Your task to perform on an android device: install app "Grab" Image 0: 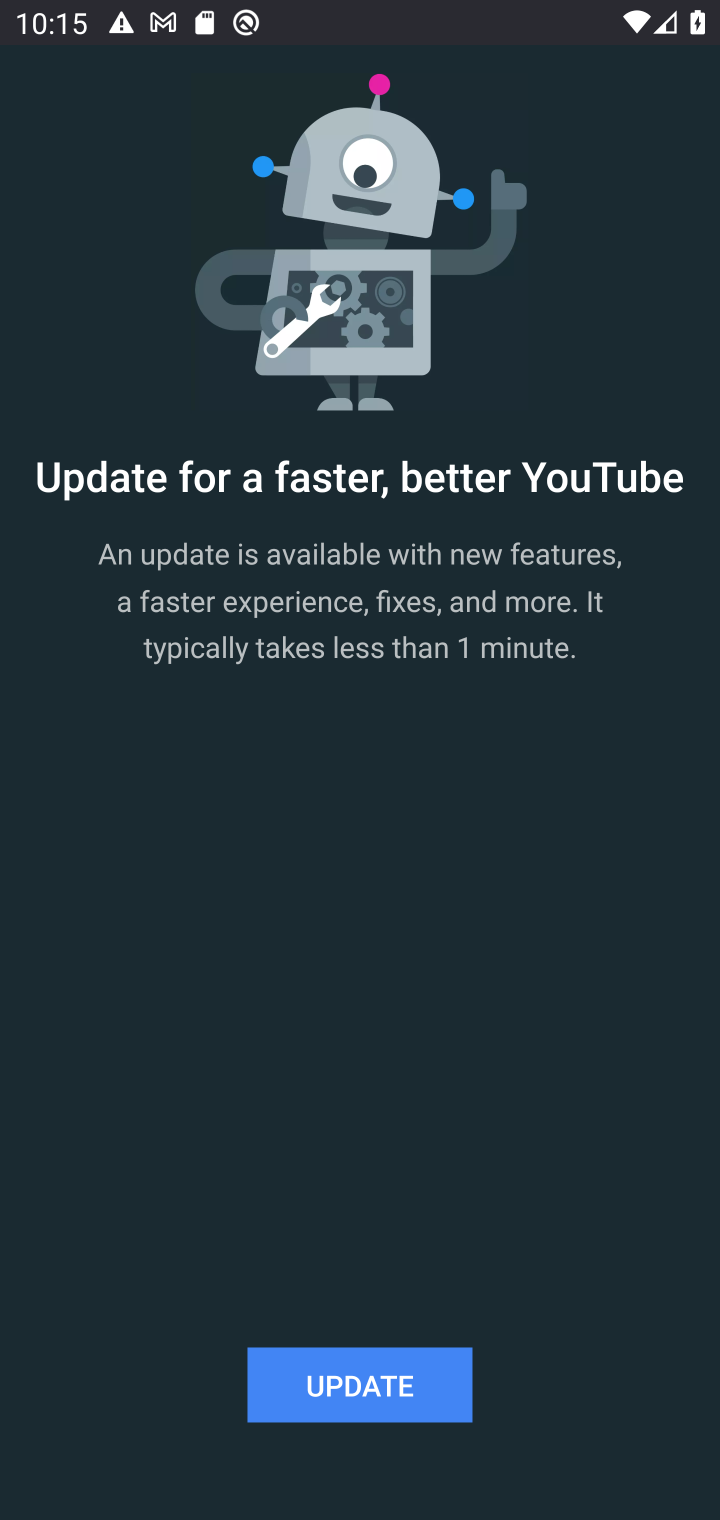
Step 0: press home button
Your task to perform on an android device: install app "Grab" Image 1: 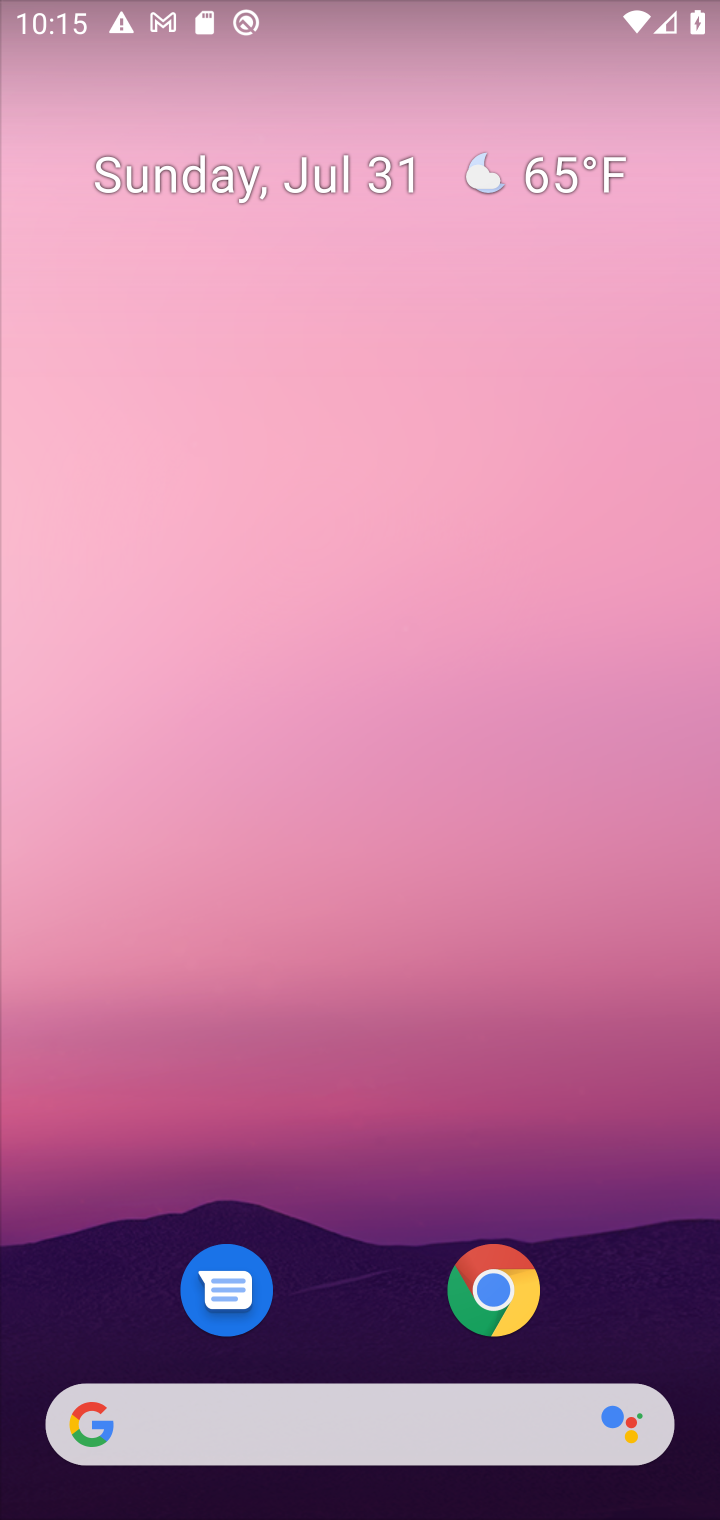
Step 1: press home button
Your task to perform on an android device: install app "Grab" Image 2: 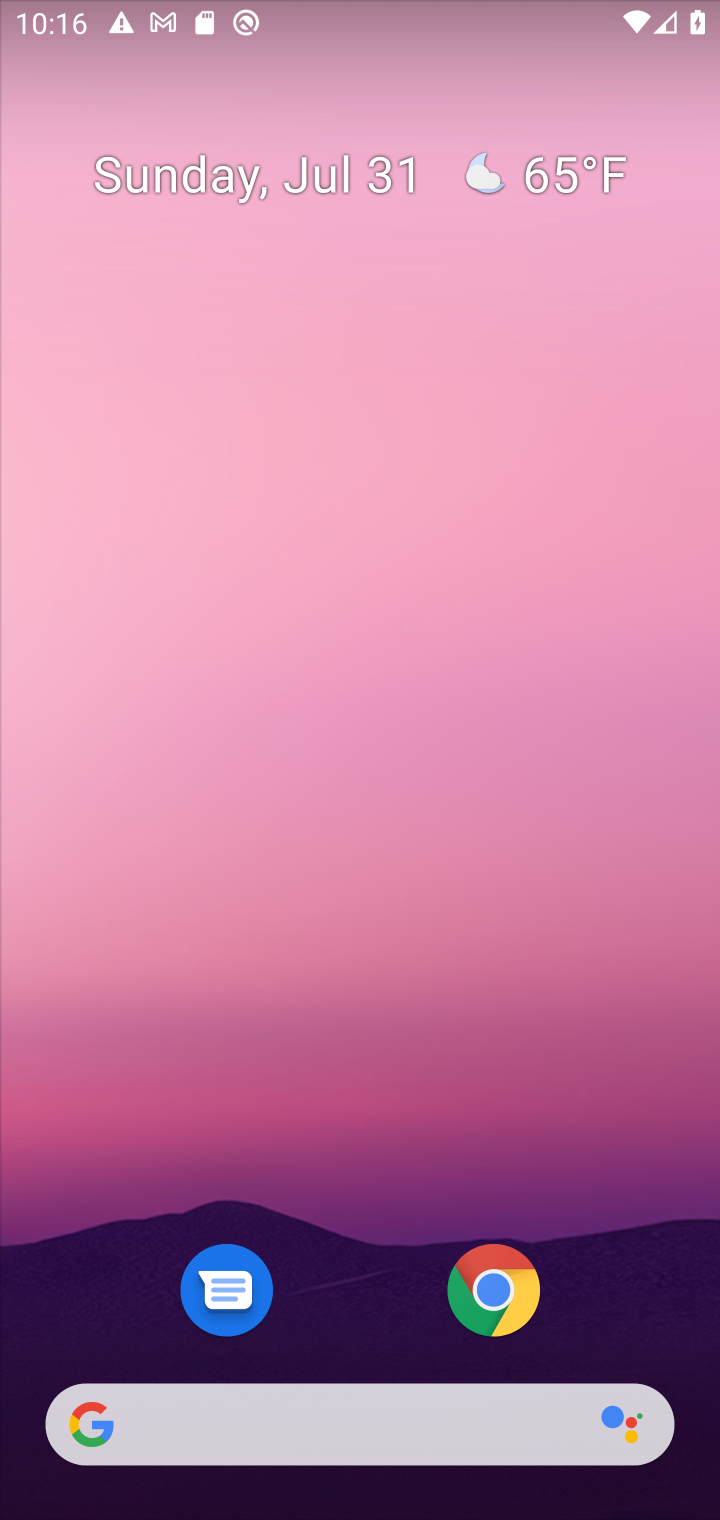
Step 2: drag from (615, 1106) to (617, 119)
Your task to perform on an android device: install app "Grab" Image 3: 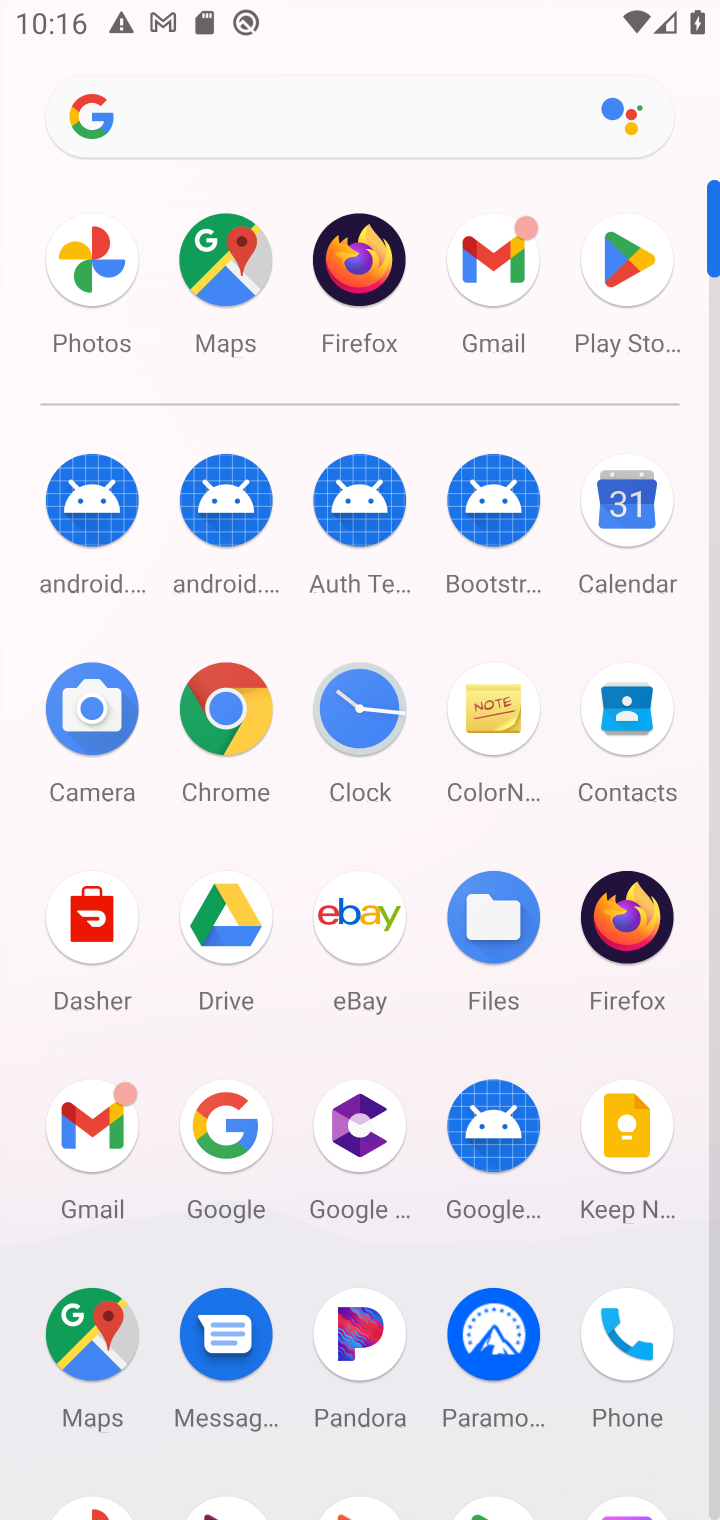
Step 3: click (624, 269)
Your task to perform on an android device: install app "Grab" Image 4: 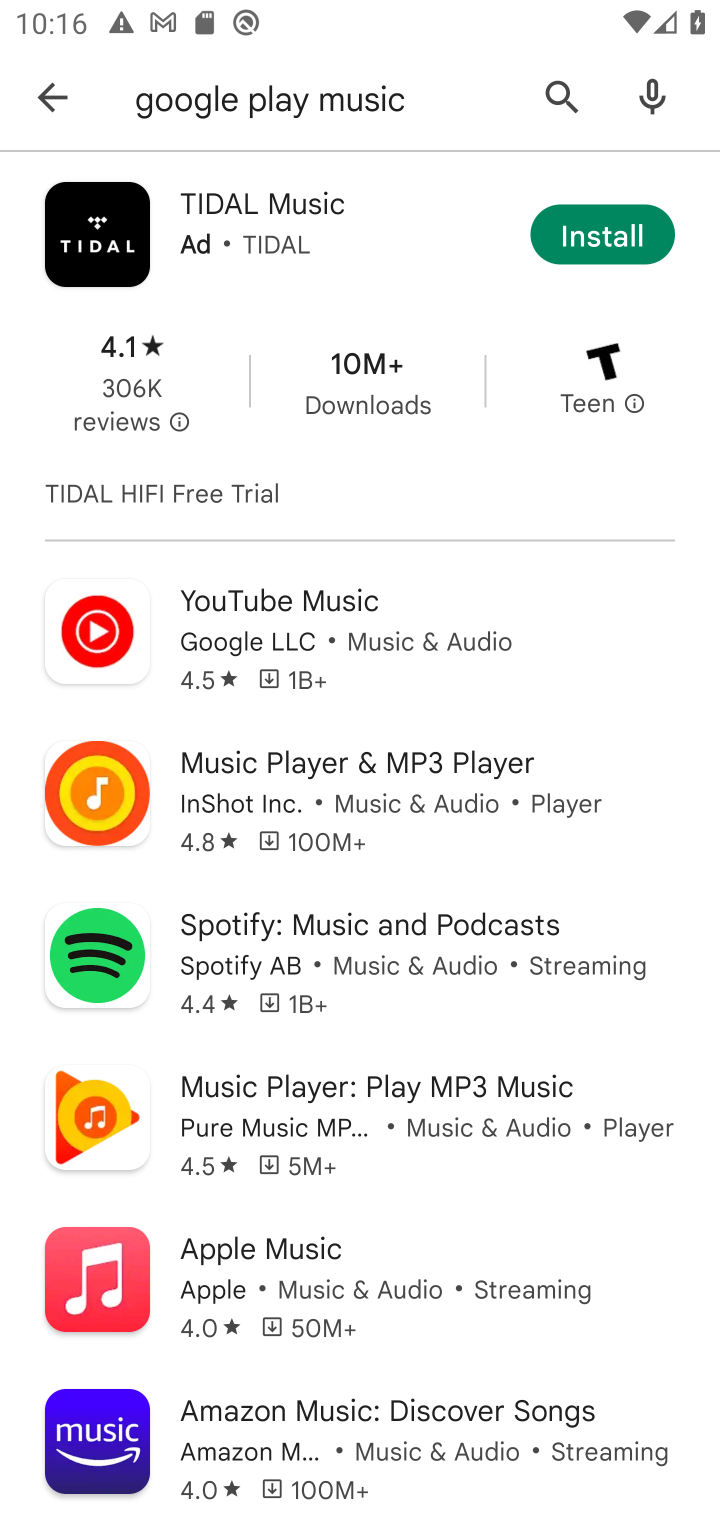
Step 4: click (559, 92)
Your task to perform on an android device: install app "Grab" Image 5: 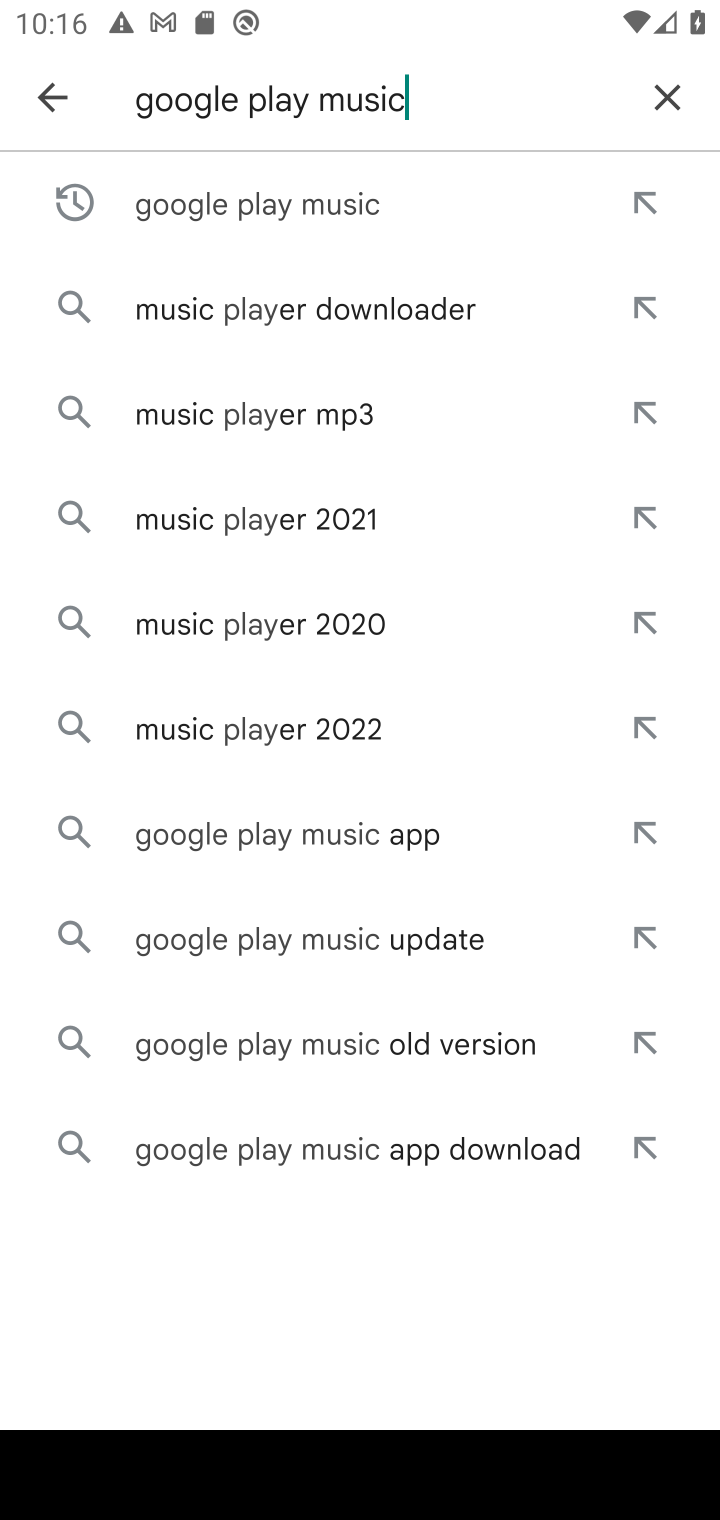
Step 5: click (676, 102)
Your task to perform on an android device: install app "Grab" Image 6: 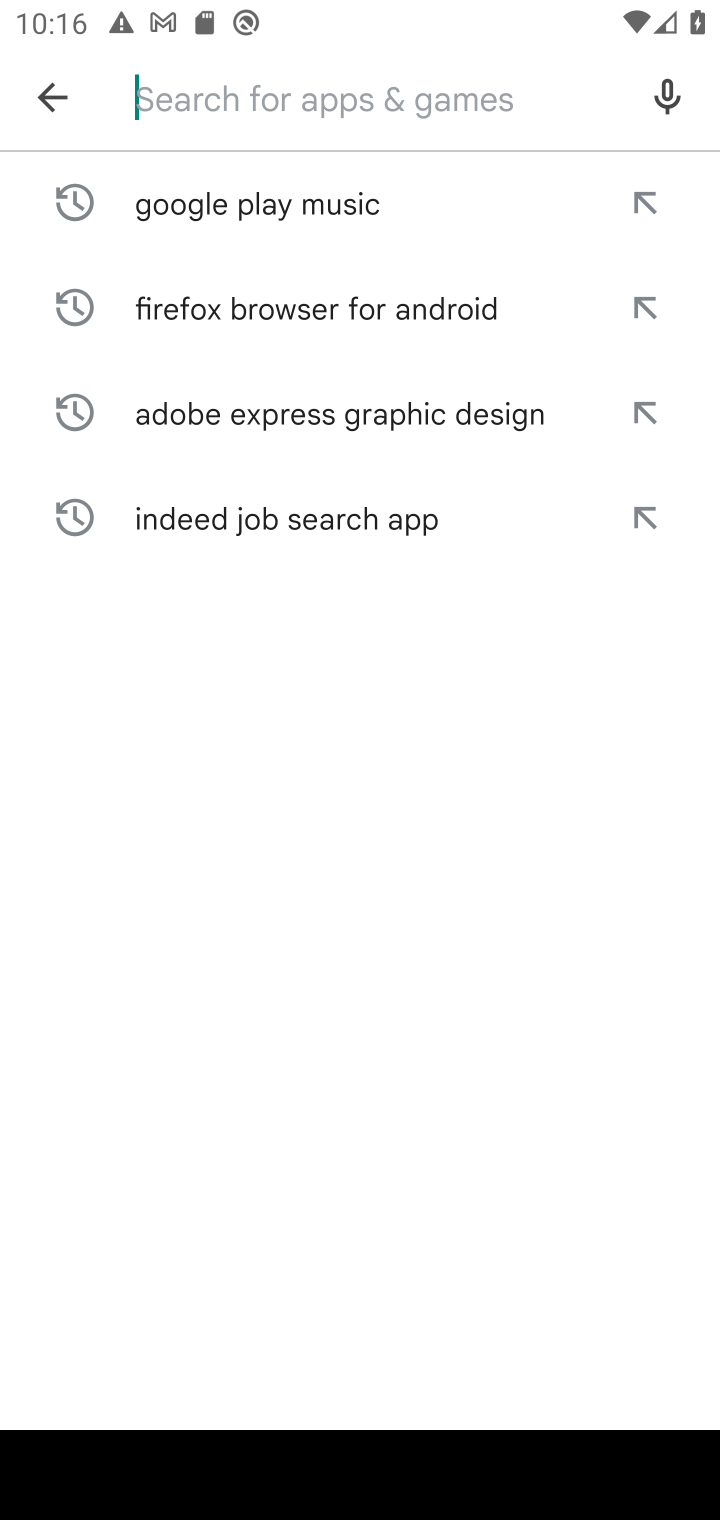
Step 6: type "grab"
Your task to perform on an android device: install app "Grab" Image 7: 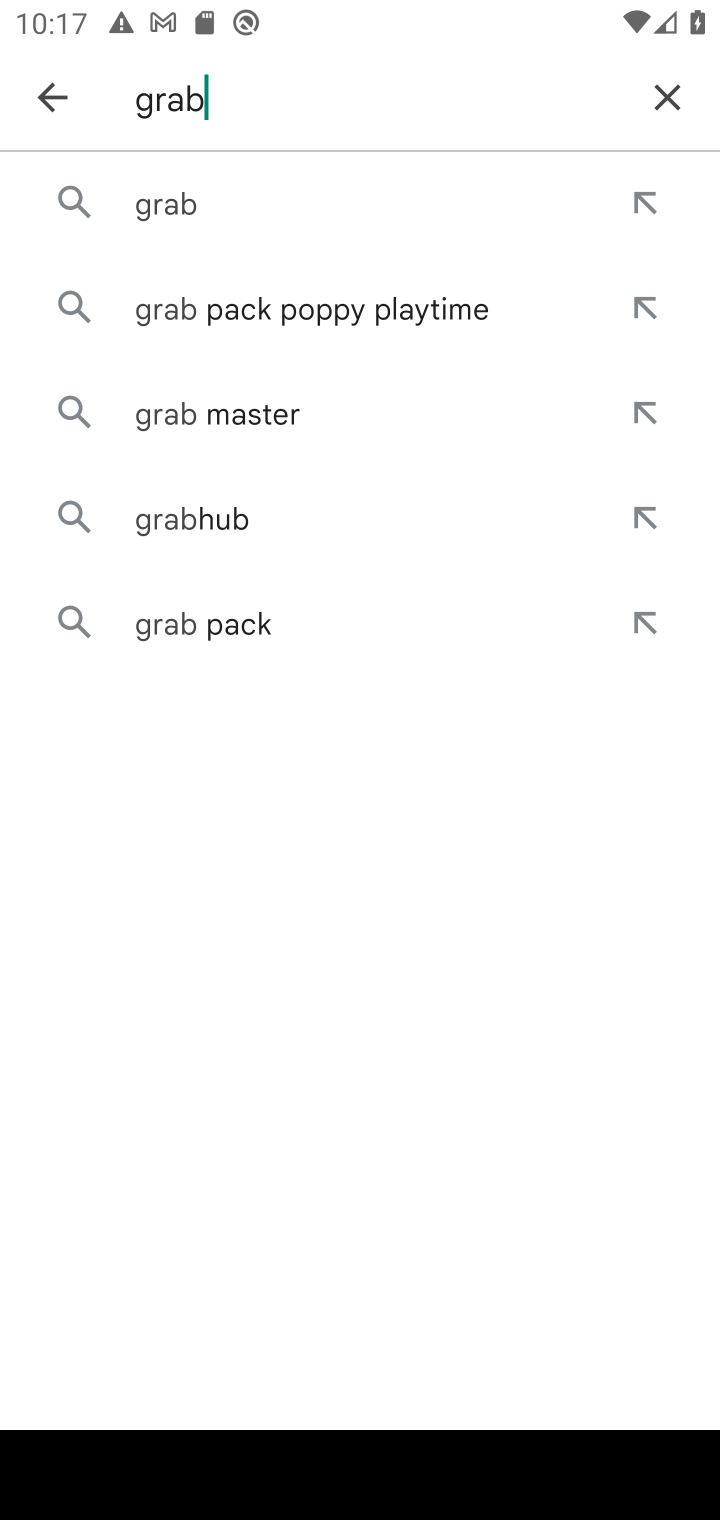
Step 7: click (333, 209)
Your task to perform on an android device: install app "Grab" Image 8: 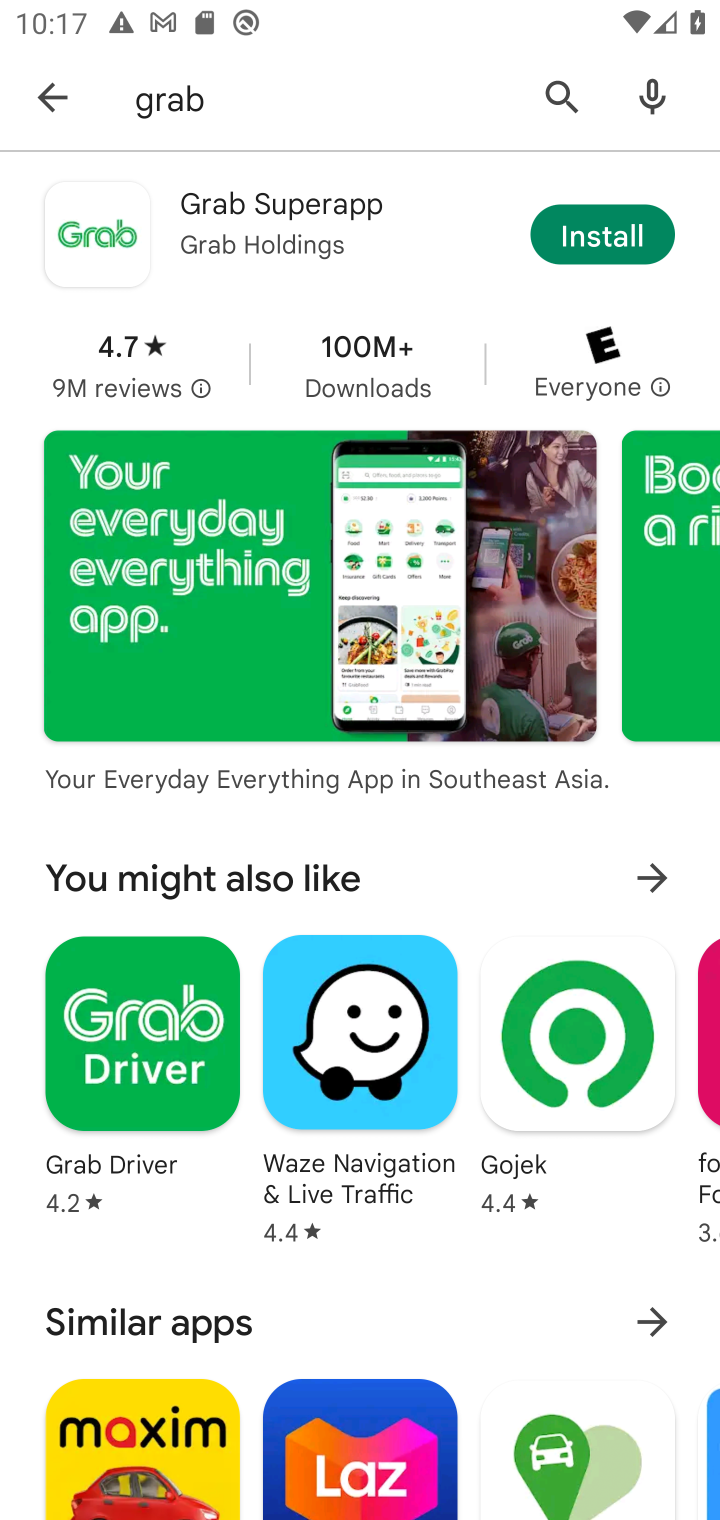
Step 8: click (626, 231)
Your task to perform on an android device: install app "Grab" Image 9: 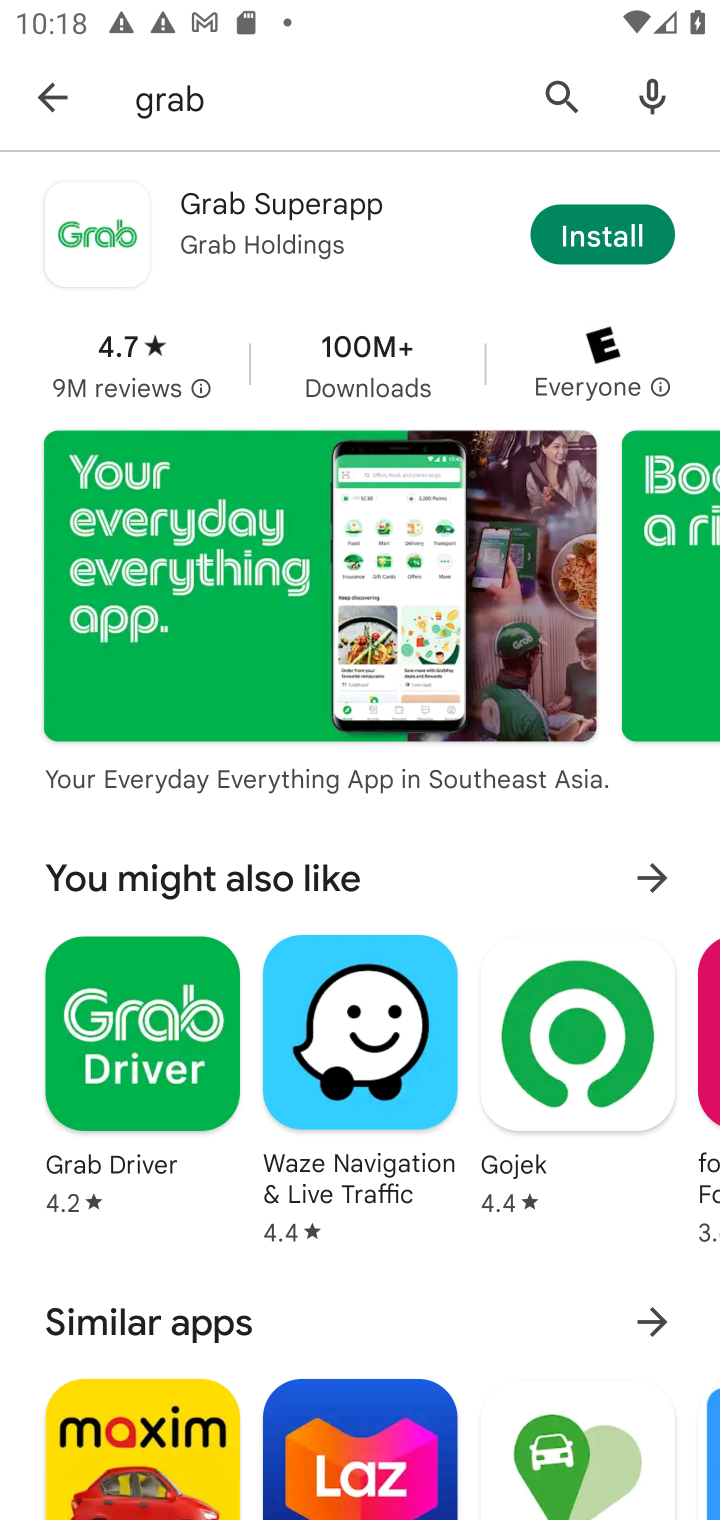
Step 9: task complete